Your task to perform on an android device: Open the Play Movies app and select the watchlist tab. Image 0: 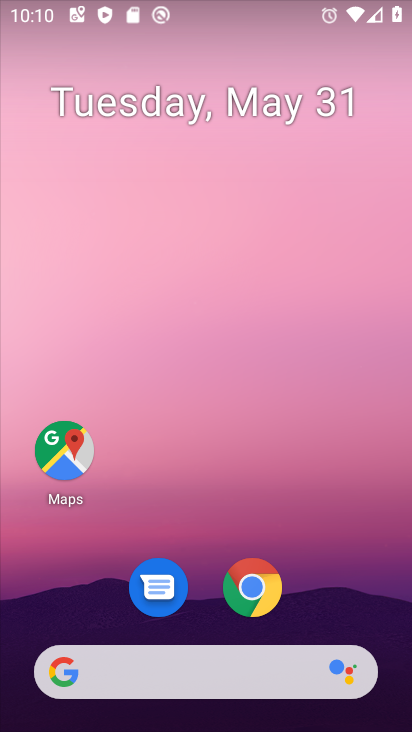
Step 0: drag from (356, 615) to (355, 237)
Your task to perform on an android device: Open the Play Movies app and select the watchlist tab. Image 1: 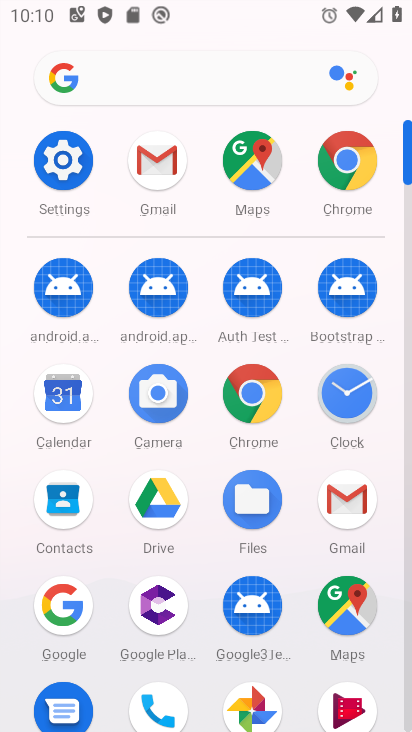
Step 1: drag from (303, 657) to (302, 347)
Your task to perform on an android device: Open the Play Movies app and select the watchlist tab. Image 2: 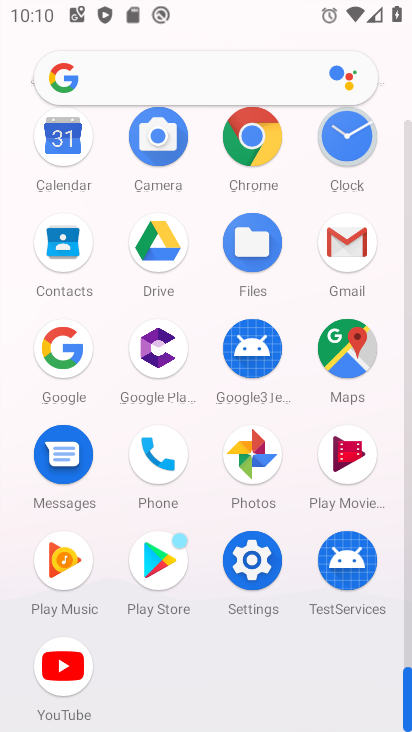
Step 2: click (350, 473)
Your task to perform on an android device: Open the Play Movies app and select the watchlist tab. Image 3: 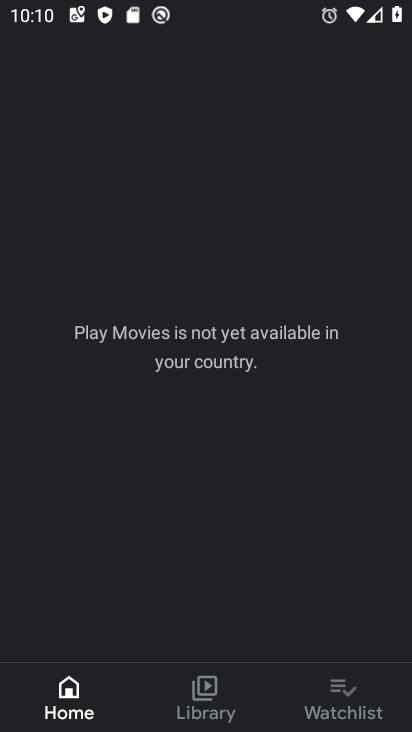
Step 3: click (365, 708)
Your task to perform on an android device: Open the Play Movies app and select the watchlist tab. Image 4: 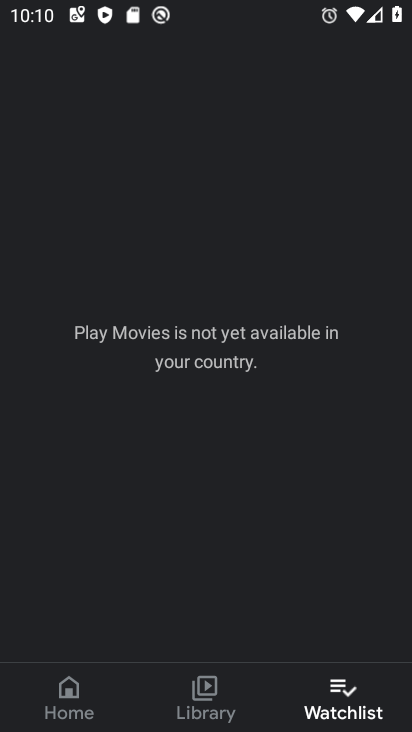
Step 4: task complete